Your task to perform on an android device: Find coffee shops on Maps Image 0: 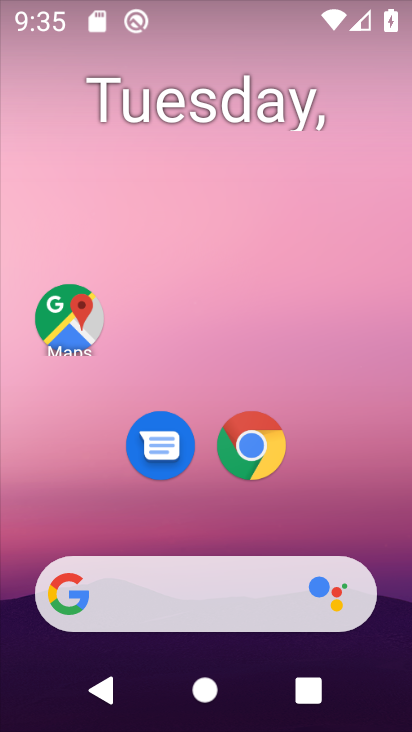
Step 0: click (70, 312)
Your task to perform on an android device: Find coffee shops on Maps Image 1: 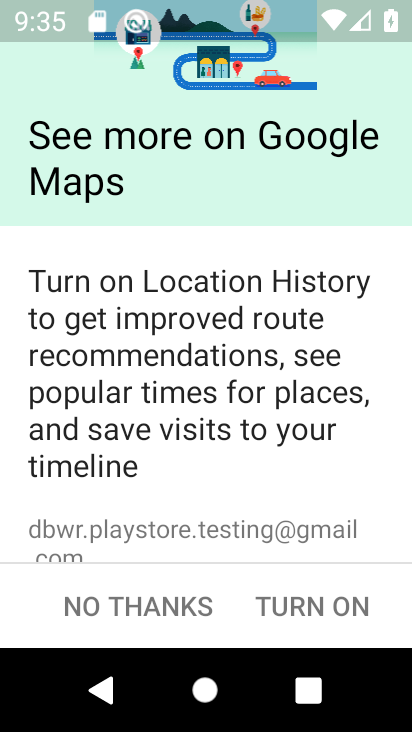
Step 1: click (284, 608)
Your task to perform on an android device: Find coffee shops on Maps Image 2: 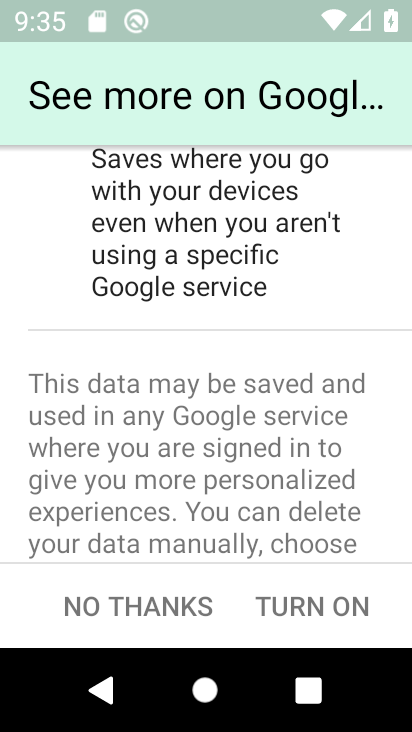
Step 2: click (284, 608)
Your task to perform on an android device: Find coffee shops on Maps Image 3: 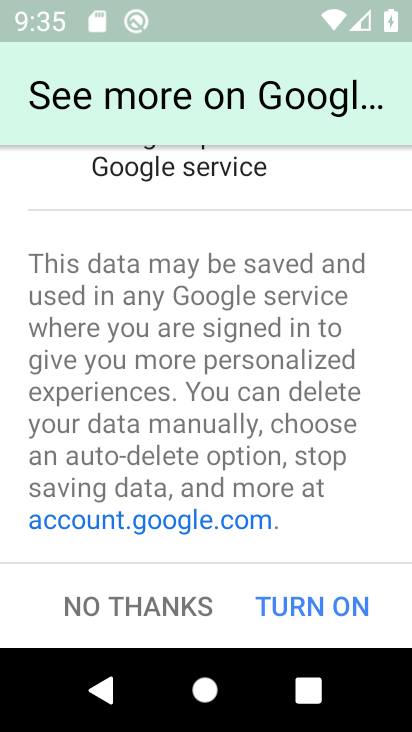
Step 3: click (284, 608)
Your task to perform on an android device: Find coffee shops on Maps Image 4: 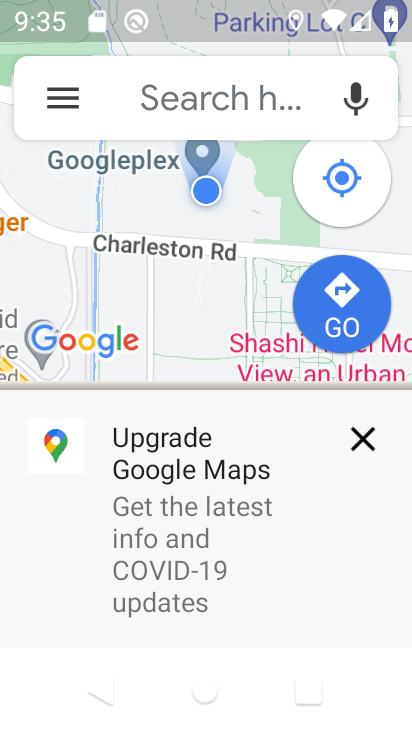
Step 4: click (185, 99)
Your task to perform on an android device: Find coffee shops on Maps Image 5: 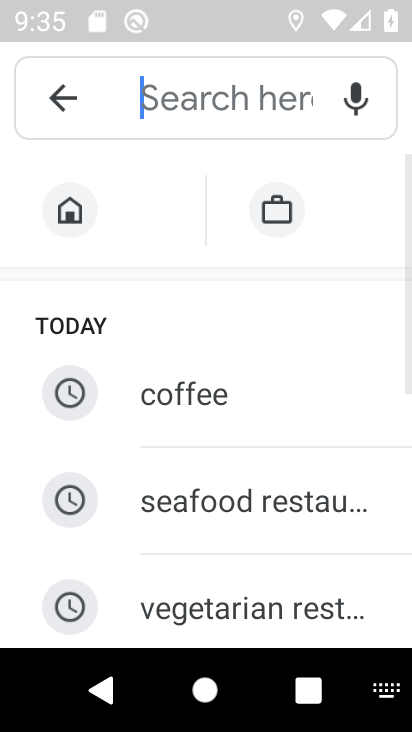
Step 5: type "coffee shops"
Your task to perform on an android device: Find coffee shops on Maps Image 6: 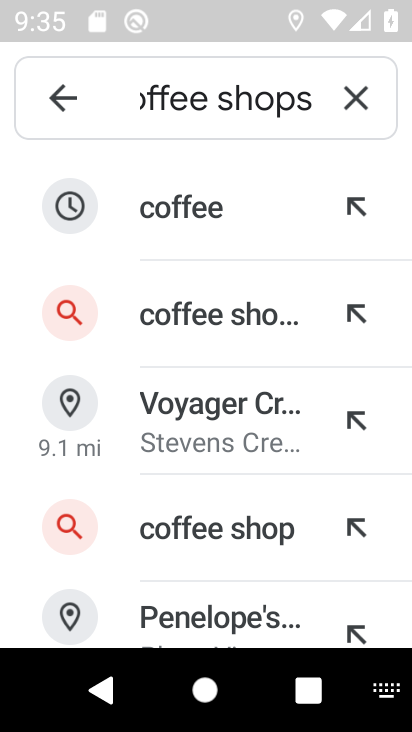
Step 6: click (257, 309)
Your task to perform on an android device: Find coffee shops on Maps Image 7: 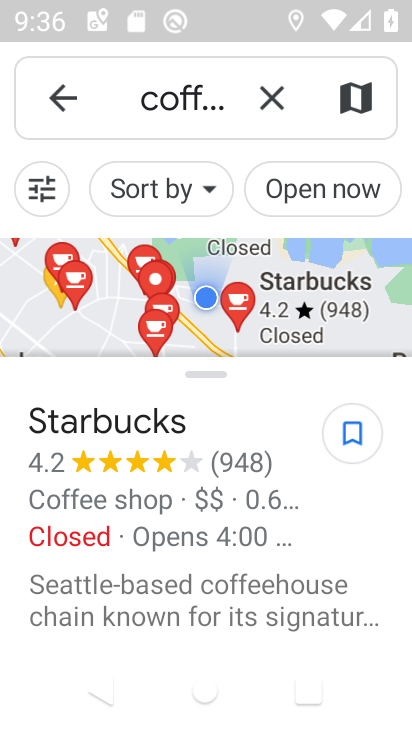
Step 7: task complete